Your task to perform on an android device: What's the weather going to be tomorrow? Image 0: 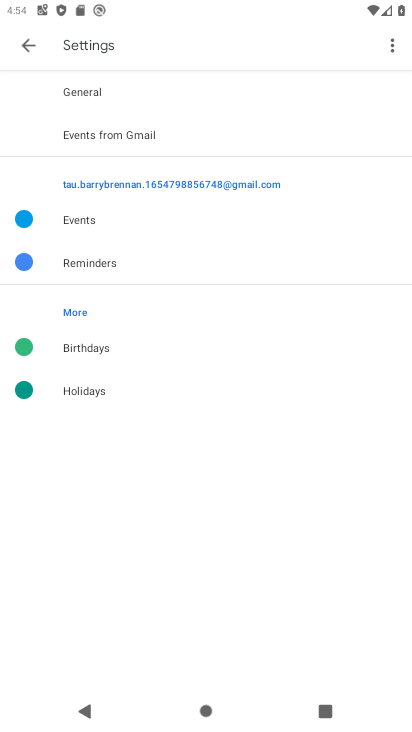
Step 0: press back button
Your task to perform on an android device: What's the weather going to be tomorrow? Image 1: 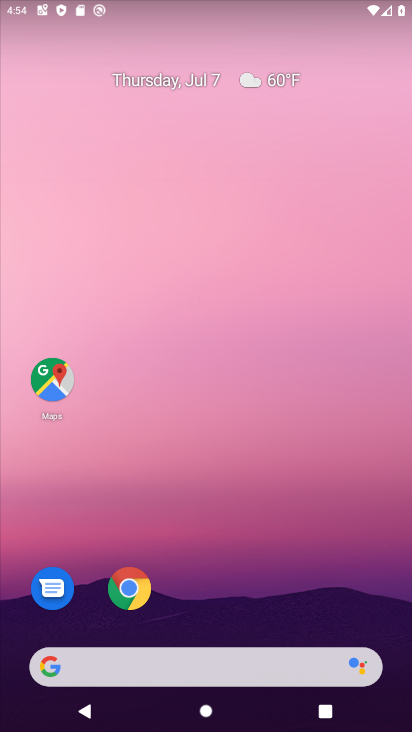
Step 1: click (281, 67)
Your task to perform on an android device: What's the weather going to be tomorrow? Image 2: 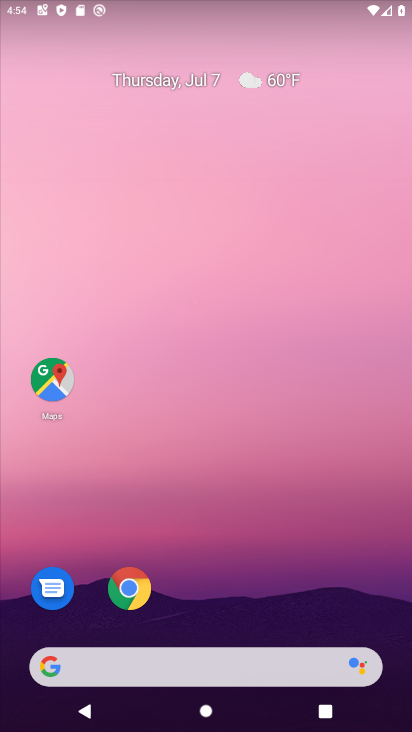
Step 2: click (255, 79)
Your task to perform on an android device: What's the weather going to be tomorrow? Image 3: 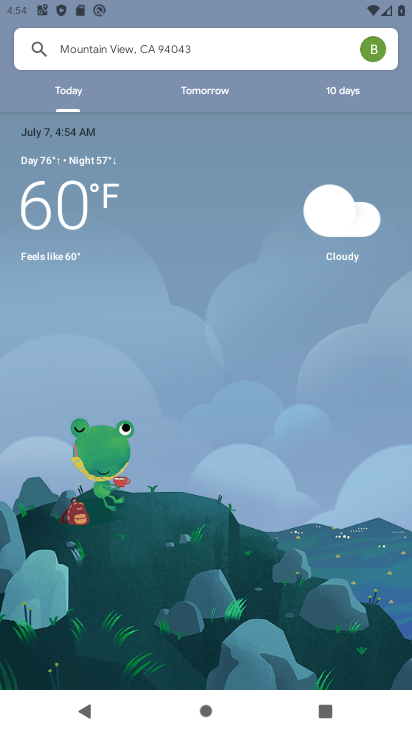
Step 3: click (184, 78)
Your task to perform on an android device: What's the weather going to be tomorrow? Image 4: 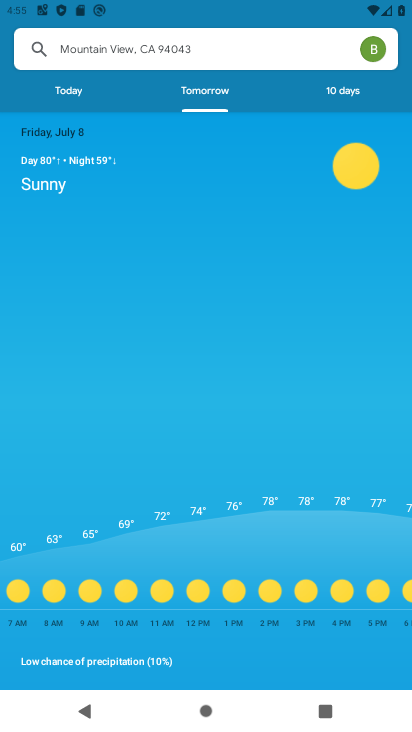
Step 4: task complete